Your task to perform on an android device: turn pop-ups on in chrome Image 0: 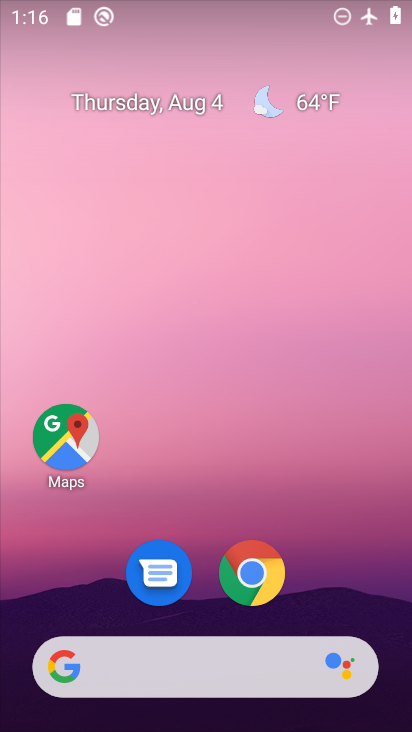
Step 0: drag from (340, 583) to (318, 45)
Your task to perform on an android device: turn pop-ups on in chrome Image 1: 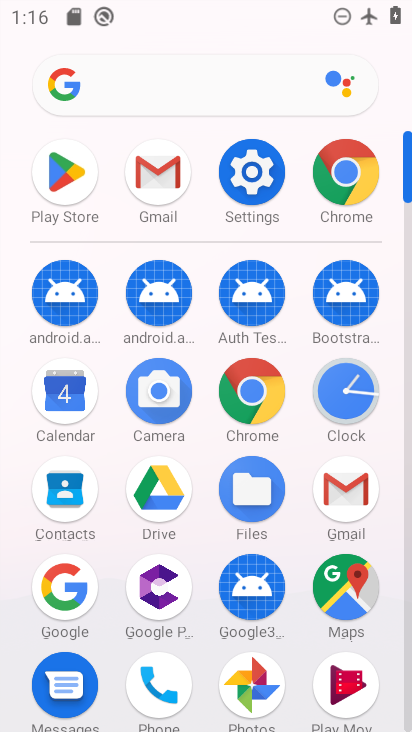
Step 1: click (253, 387)
Your task to perform on an android device: turn pop-ups on in chrome Image 2: 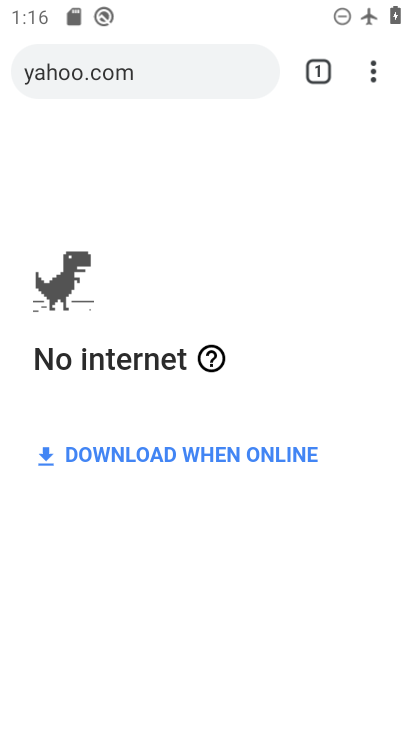
Step 2: drag from (379, 67) to (222, 564)
Your task to perform on an android device: turn pop-ups on in chrome Image 3: 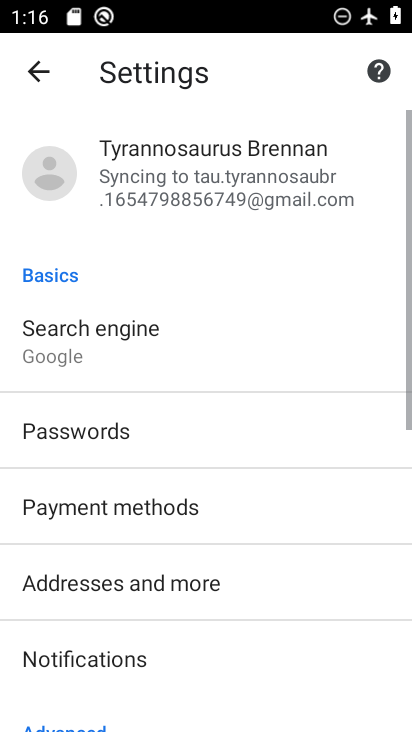
Step 3: drag from (227, 528) to (256, 99)
Your task to perform on an android device: turn pop-ups on in chrome Image 4: 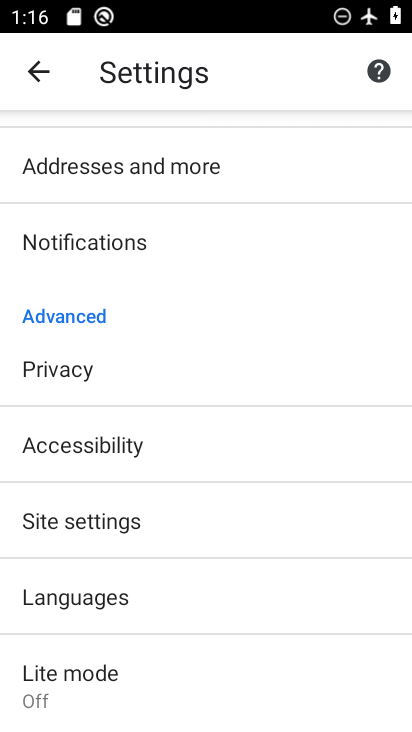
Step 4: drag from (242, 602) to (296, 231)
Your task to perform on an android device: turn pop-ups on in chrome Image 5: 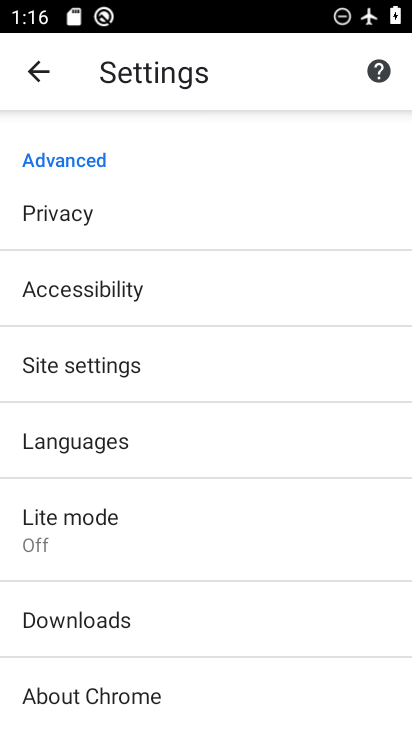
Step 5: click (110, 353)
Your task to perform on an android device: turn pop-ups on in chrome Image 6: 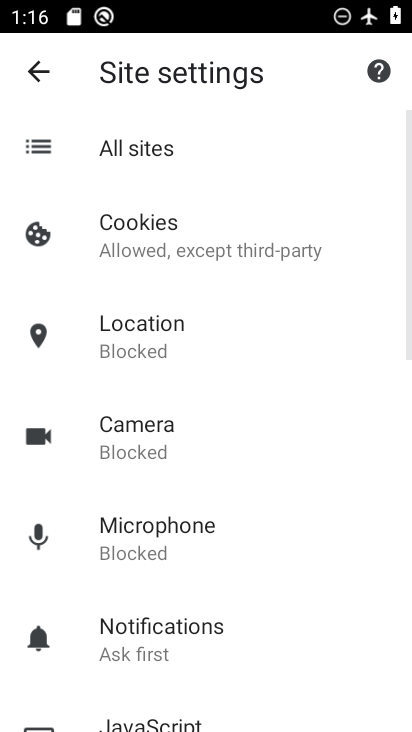
Step 6: drag from (331, 650) to (331, 179)
Your task to perform on an android device: turn pop-ups on in chrome Image 7: 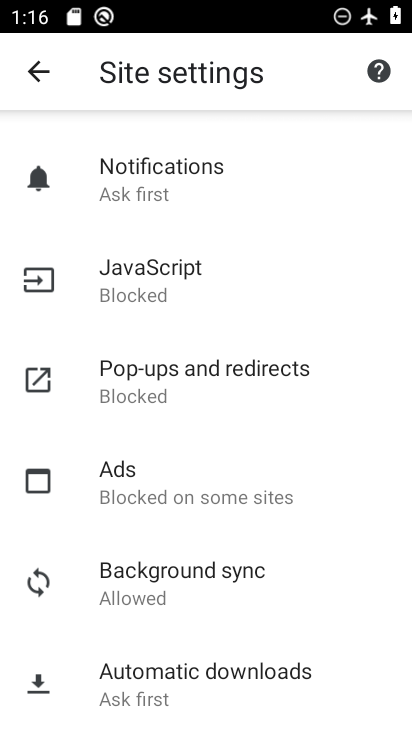
Step 7: click (192, 382)
Your task to perform on an android device: turn pop-ups on in chrome Image 8: 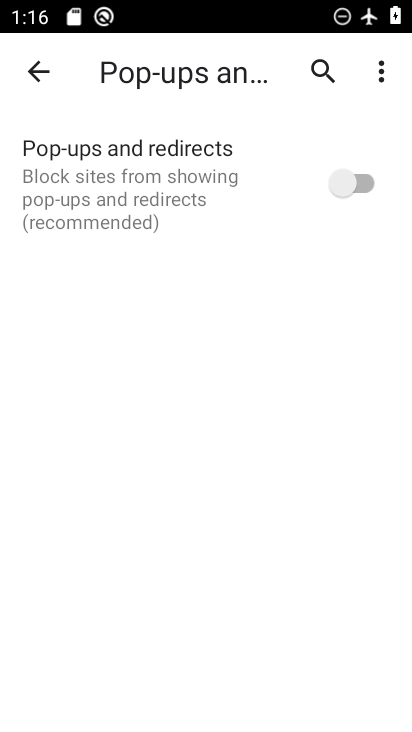
Step 8: click (362, 172)
Your task to perform on an android device: turn pop-ups on in chrome Image 9: 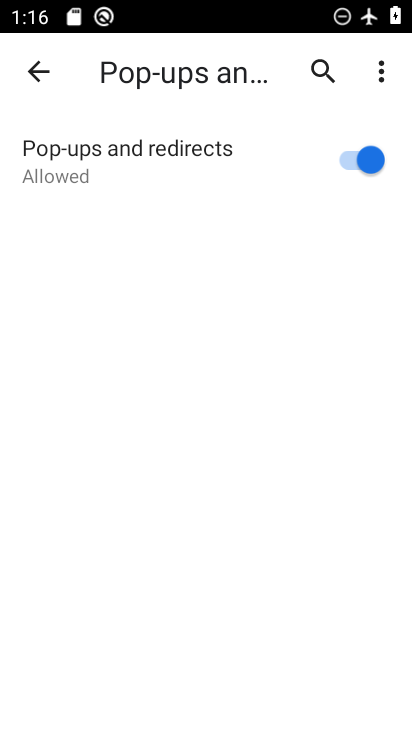
Step 9: task complete